Your task to perform on an android device: turn smart compose on in the gmail app Image 0: 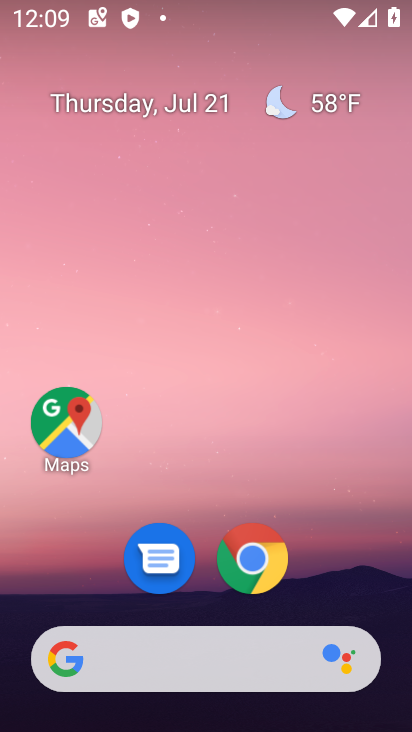
Step 0: drag from (74, 576) to (216, 5)
Your task to perform on an android device: turn smart compose on in the gmail app Image 1: 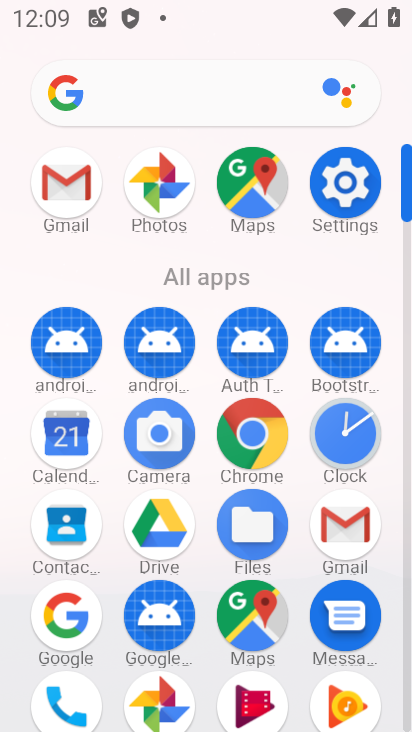
Step 1: click (55, 173)
Your task to perform on an android device: turn smart compose on in the gmail app Image 2: 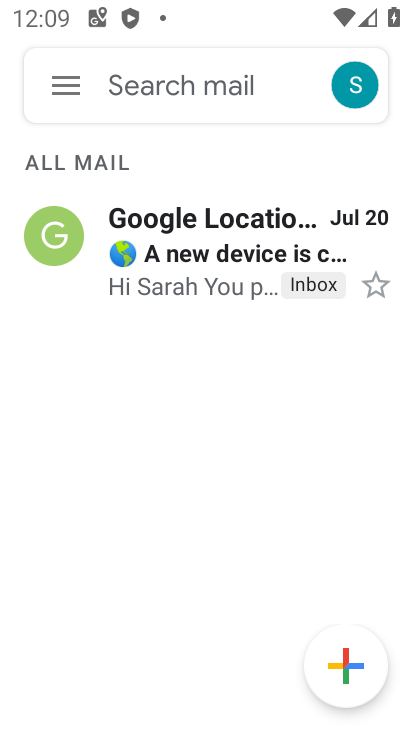
Step 2: click (67, 77)
Your task to perform on an android device: turn smart compose on in the gmail app Image 3: 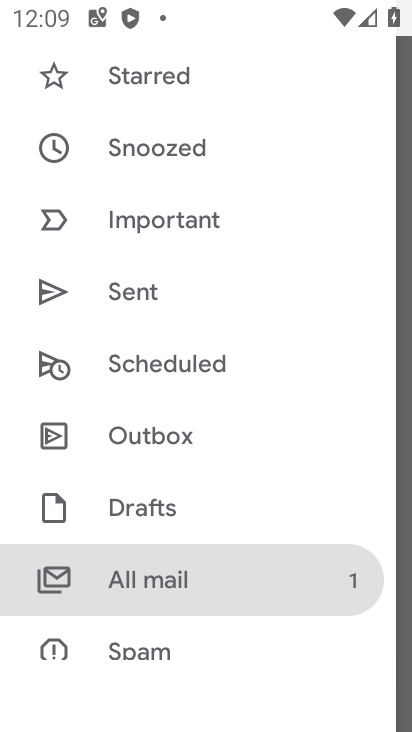
Step 3: drag from (165, 604) to (249, 141)
Your task to perform on an android device: turn smart compose on in the gmail app Image 4: 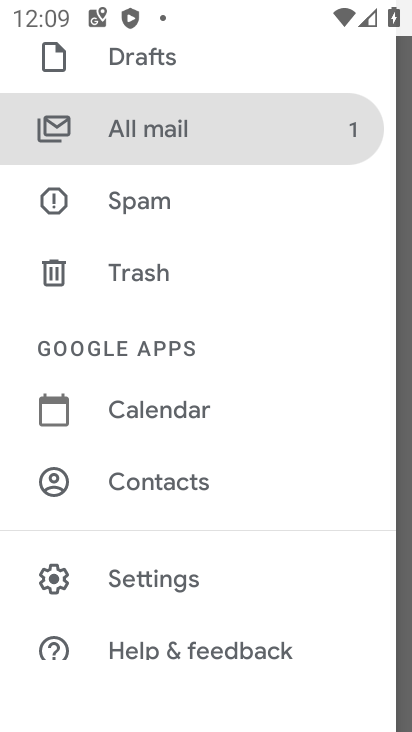
Step 4: click (152, 583)
Your task to perform on an android device: turn smart compose on in the gmail app Image 5: 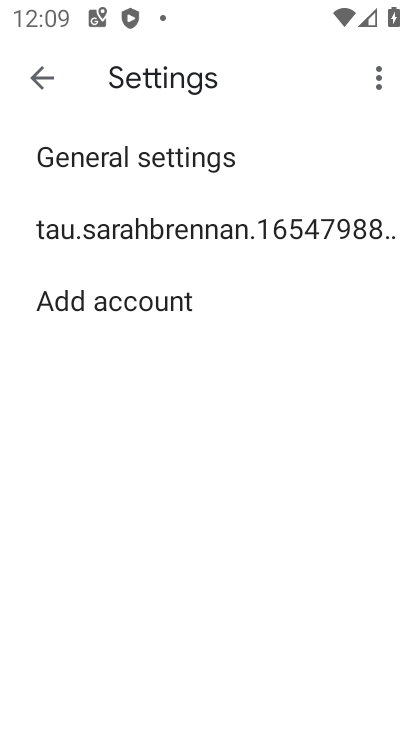
Step 5: click (178, 233)
Your task to perform on an android device: turn smart compose on in the gmail app Image 6: 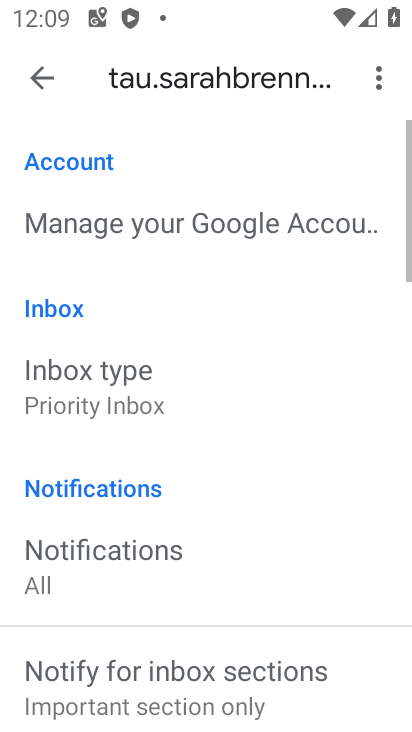
Step 6: task complete